Your task to perform on an android device: Open Chrome and go to settings Image 0: 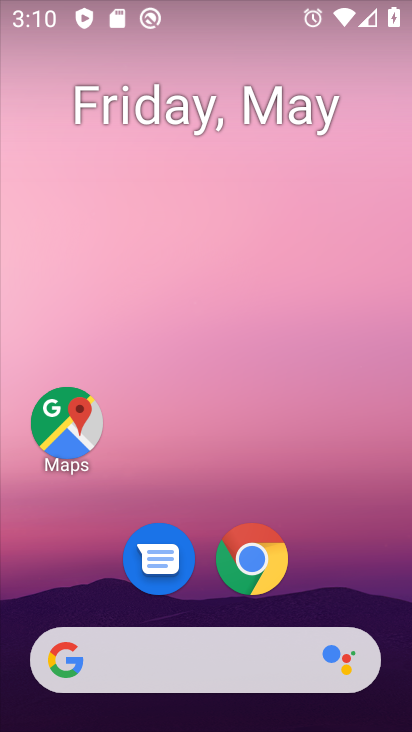
Step 0: click (264, 575)
Your task to perform on an android device: Open Chrome and go to settings Image 1: 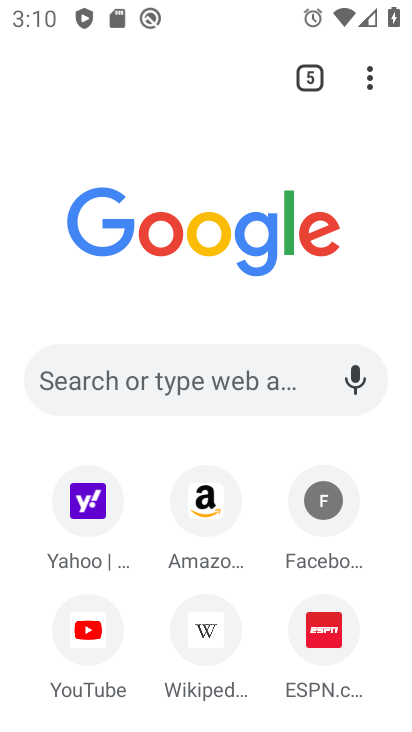
Step 1: click (383, 82)
Your task to perform on an android device: Open Chrome and go to settings Image 2: 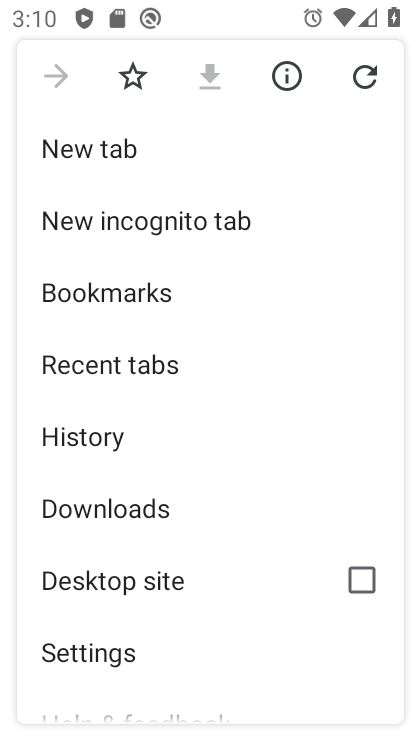
Step 2: click (158, 644)
Your task to perform on an android device: Open Chrome and go to settings Image 3: 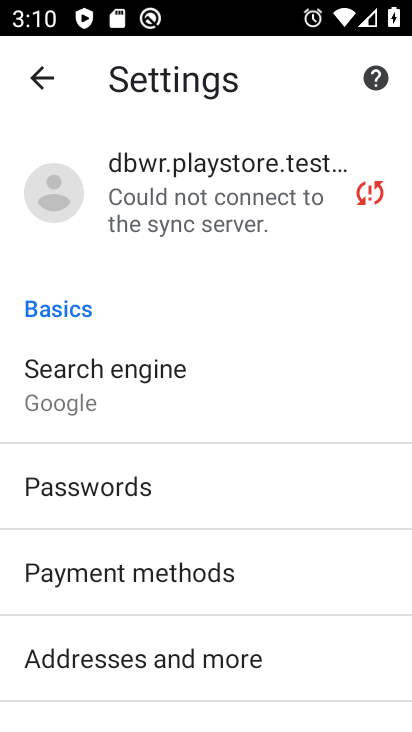
Step 3: task complete